Your task to perform on an android device: toggle location history Image 0: 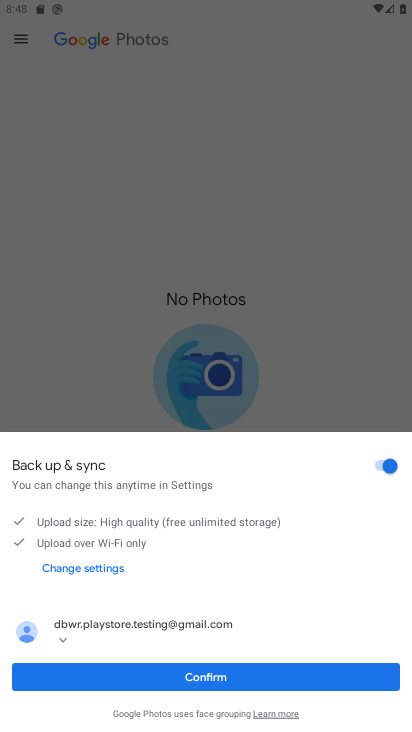
Step 0: press home button
Your task to perform on an android device: toggle location history Image 1: 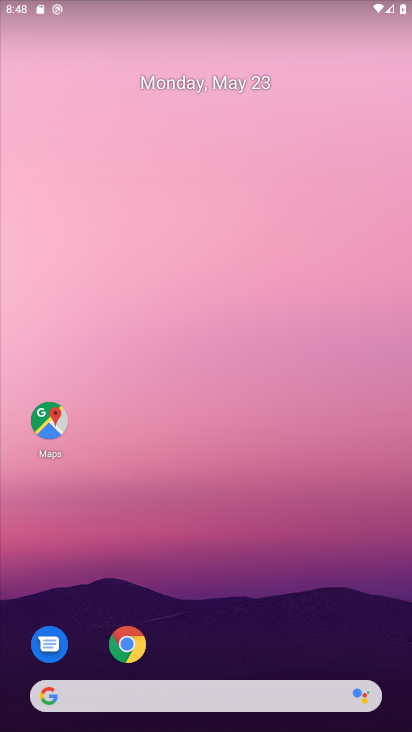
Step 1: drag from (328, 619) to (346, 53)
Your task to perform on an android device: toggle location history Image 2: 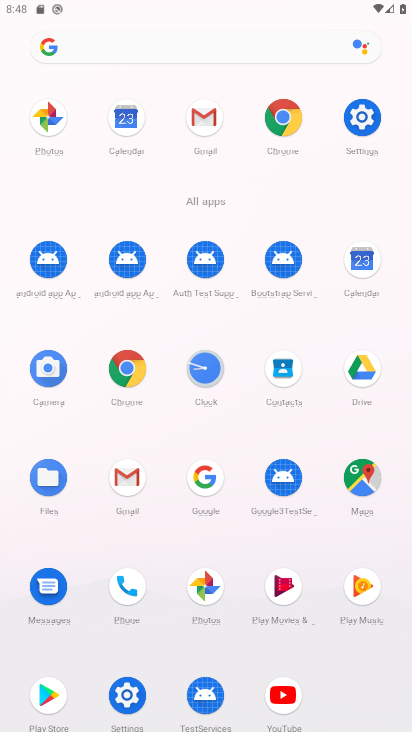
Step 2: click (360, 114)
Your task to perform on an android device: toggle location history Image 3: 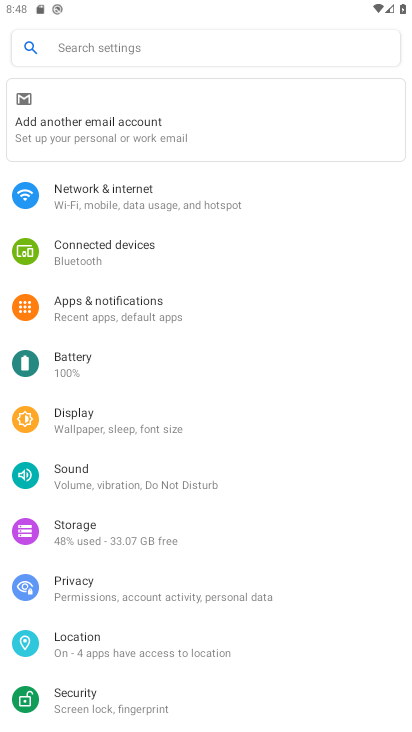
Step 3: drag from (321, 685) to (344, 234)
Your task to perform on an android device: toggle location history Image 4: 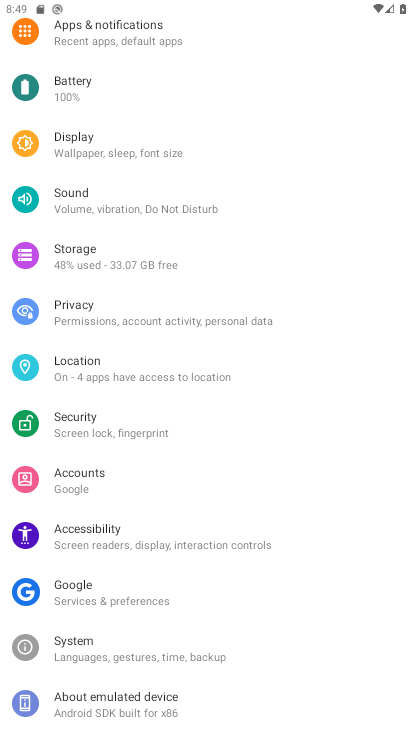
Step 4: click (101, 364)
Your task to perform on an android device: toggle location history Image 5: 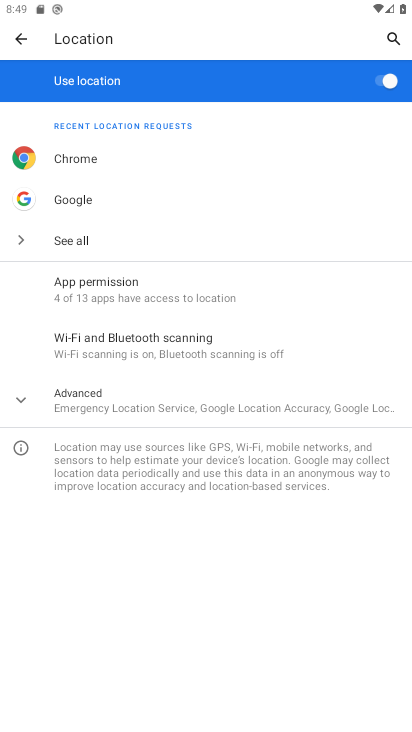
Step 5: click (160, 408)
Your task to perform on an android device: toggle location history Image 6: 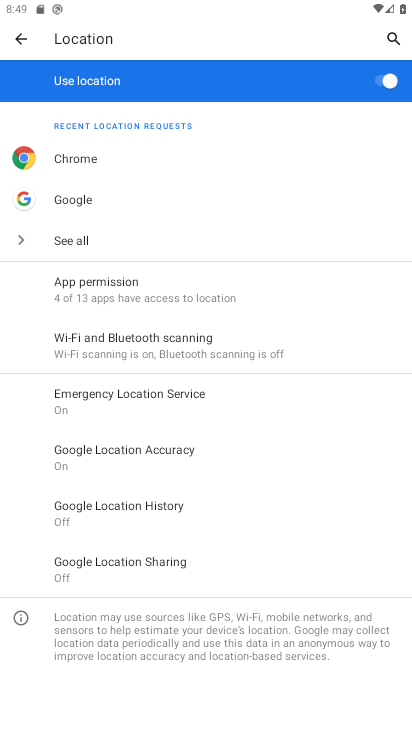
Step 6: click (187, 502)
Your task to perform on an android device: toggle location history Image 7: 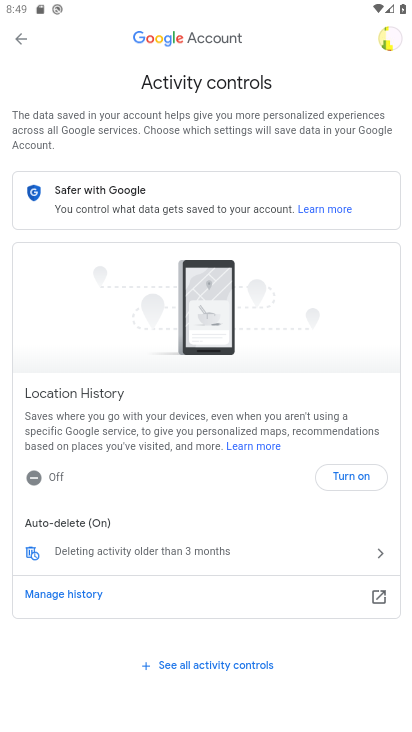
Step 7: click (366, 481)
Your task to perform on an android device: toggle location history Image 8: 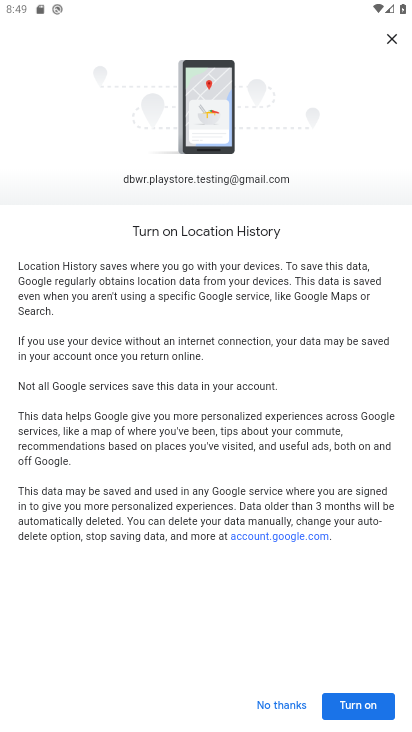
Step 8: click (368, 696)
Your task to perform on an android device: toggle location history Image 9: 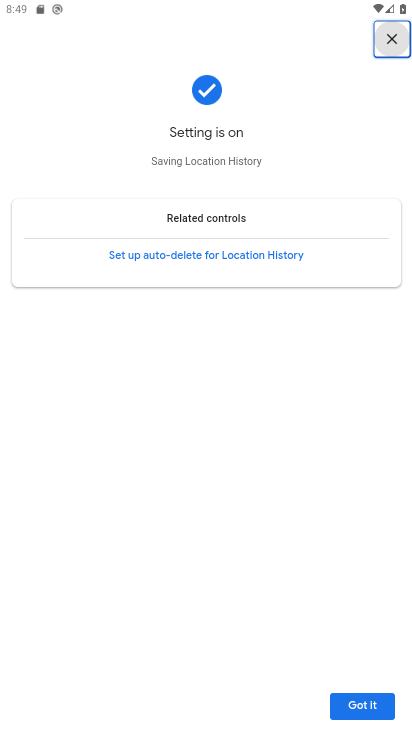
Step 9: click (369, 707)
Your task to perform on an android device: toggle location history Image 10: 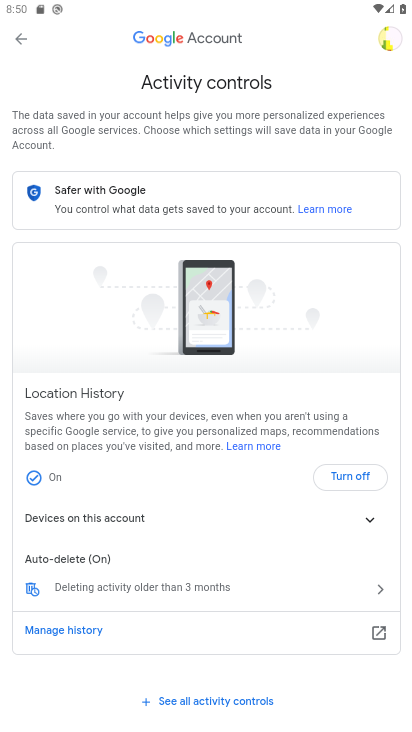
Step 10: task complete